Your task to perform on an android device: Check out the best rated books on Goodreads. Image 0: 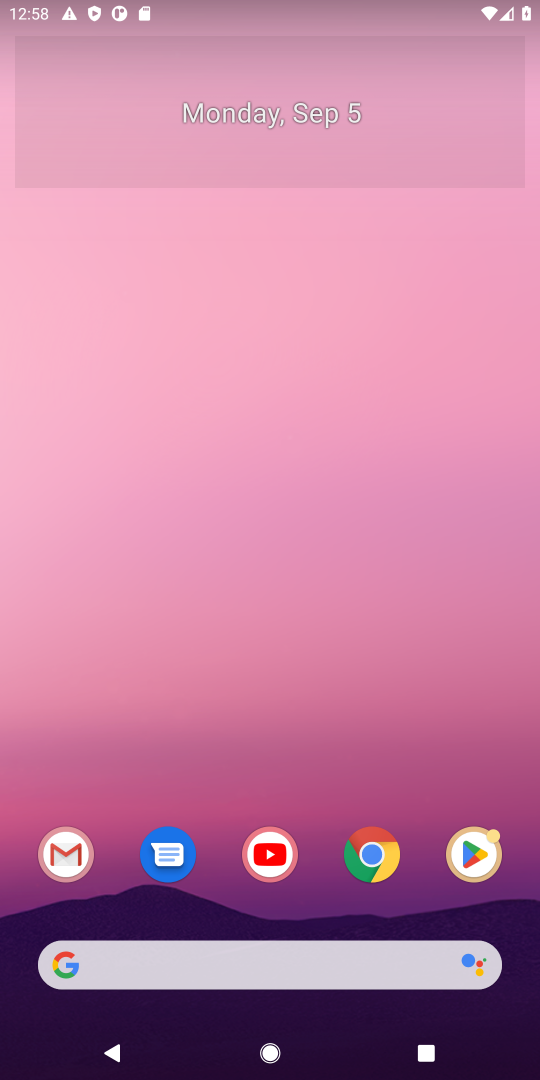
Step 0: click (399, 961)
Your task to perform on an android device: Check out the best rated books on Goodreads. Image 1: 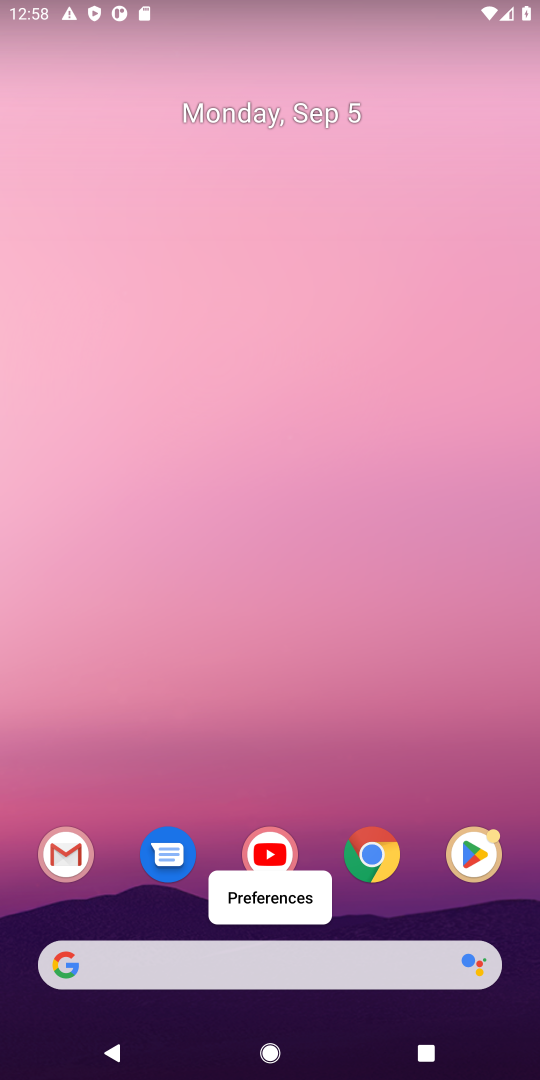
Step 1: click (278, 945)
Your task to perform on an android device: Check out the best rated books on Goodreads. Image 2: 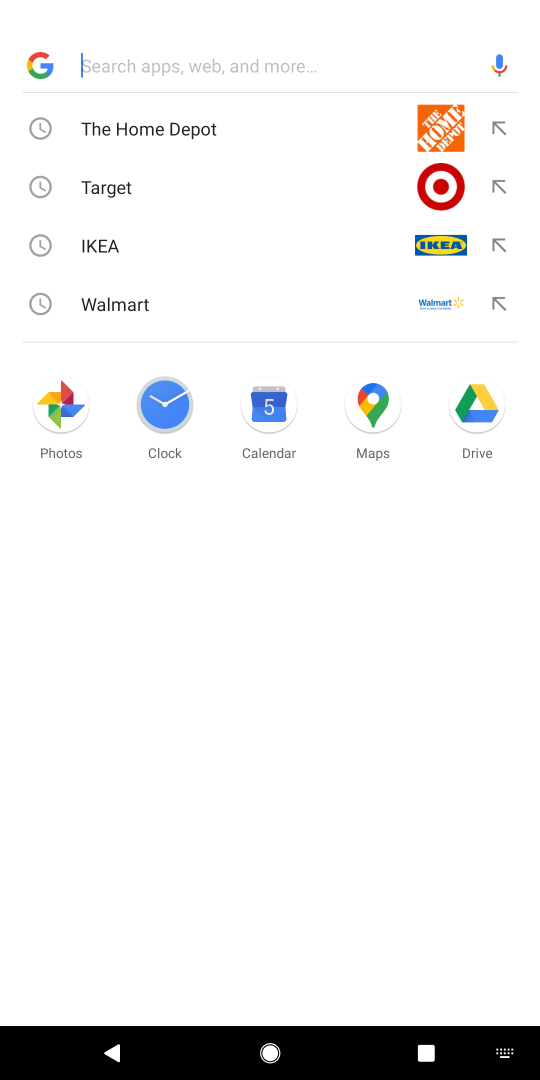
Step 2: type "goodreads"
Your task to perform on an android device: Check out the best rated books on Goodreads. Image 3: 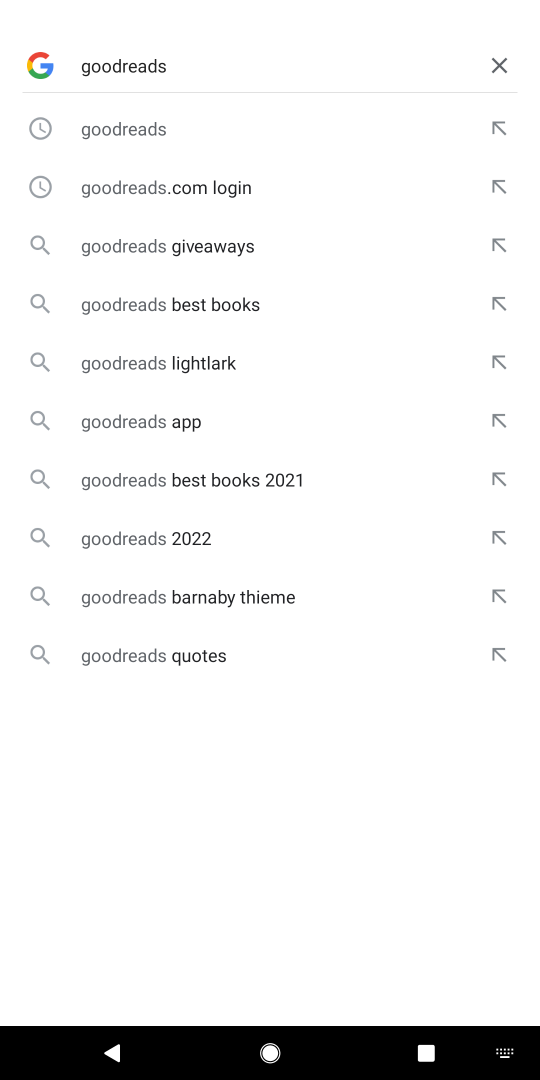
Step 3: press enter
Your task to perform on an android device: Check out the best rated books on Goodreads. Image 4: 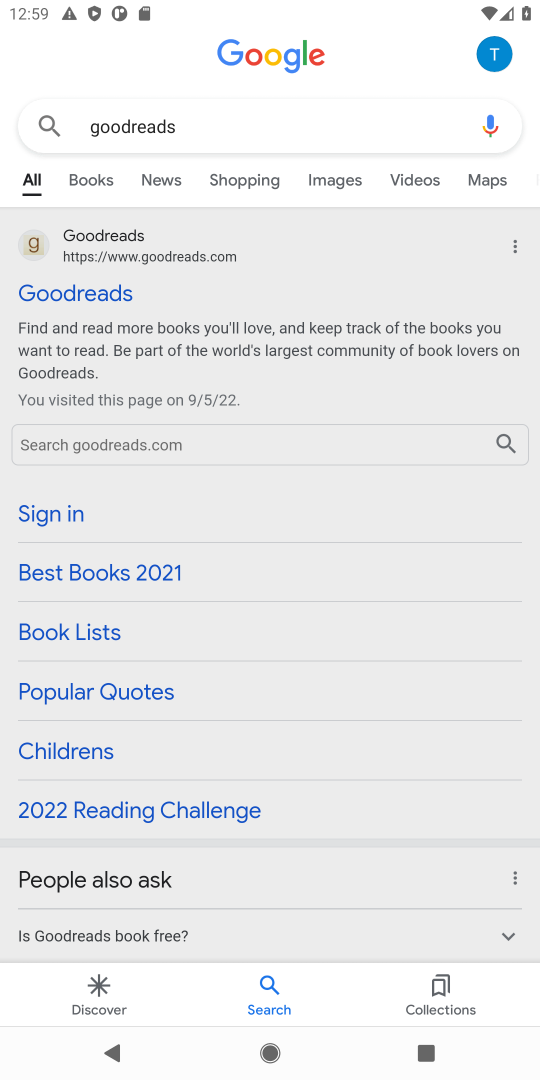
Step 4: click (104, 292)
Your task to perform on an android device: Check out the best rated books on Goodreads. Image 5: 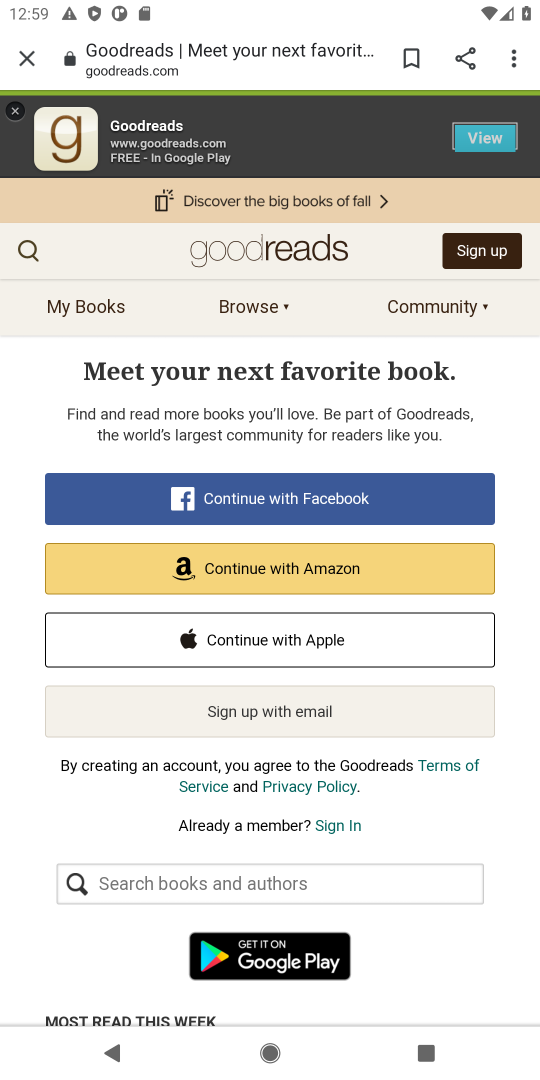
Step 5: click (67, 252)
Your task to perform on an android device: Check out the best rated books on Goodreads. Image 6: 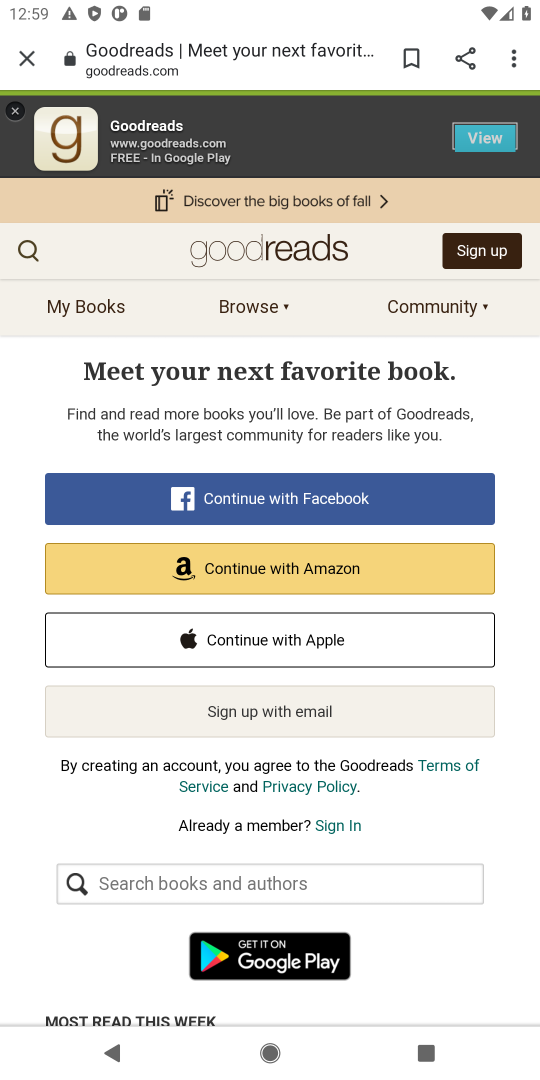
Step 6: click (35, 258)
Your task to perform on an android device: Check out the best rated books on Goodreads. Image 7: 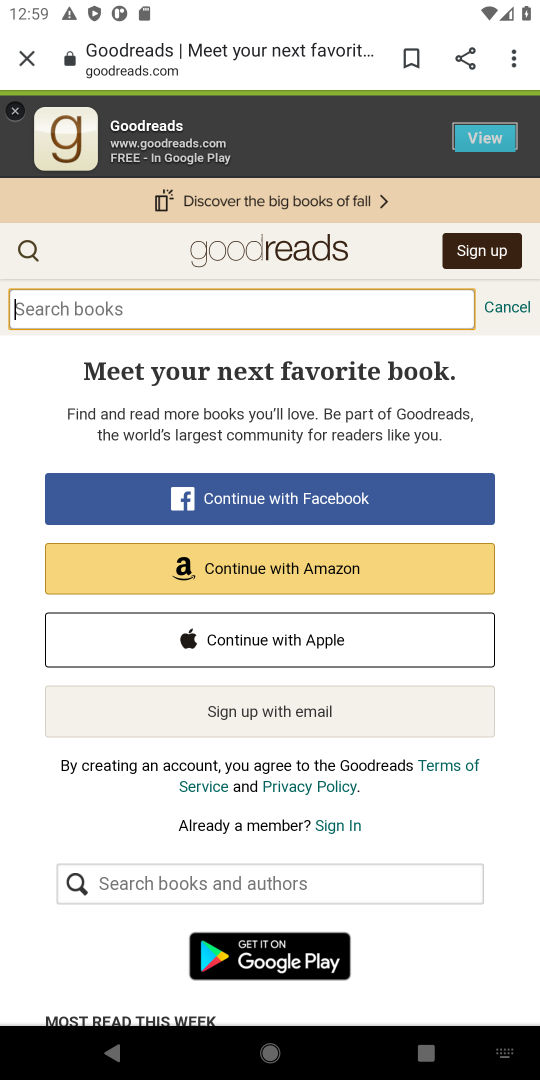
Step 7: type "best rated books"
Your task to perform on an android device: Check out the best rated books on Goodreads. Image 8: 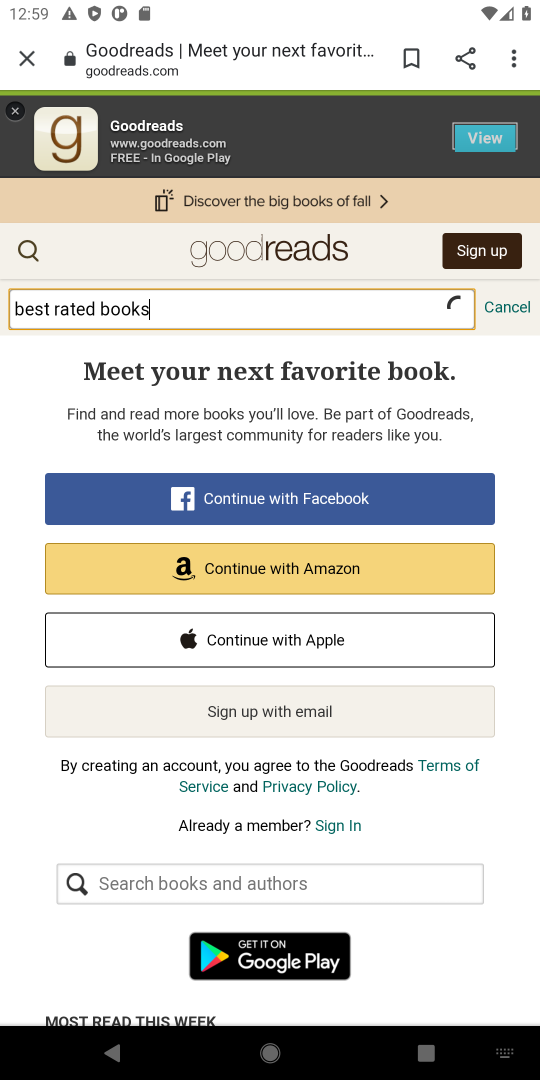
Step 8: press enter
Your task to perform on an android device: Check out the best rated books on Goodreads. Image 9: 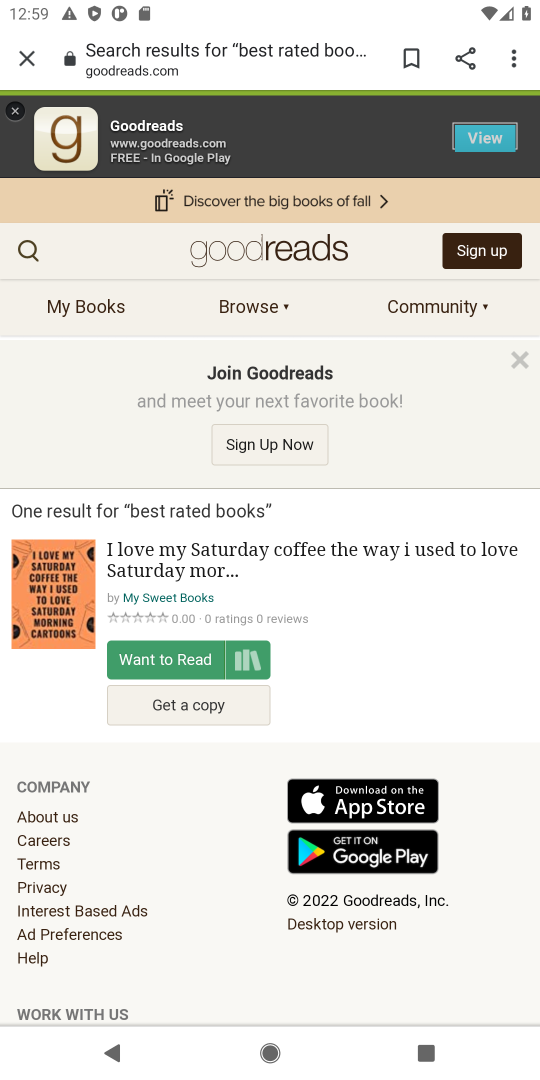
Step 9: task complete